Your task to perform on an android device: Show me popular videos on Youtube Image 0: 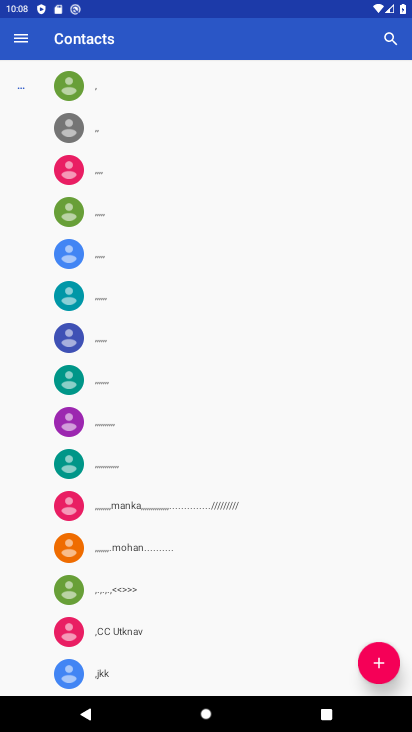
Step 0: press home button
Your task to perform on an android device: Show me popular videos on Youtube Image 1: 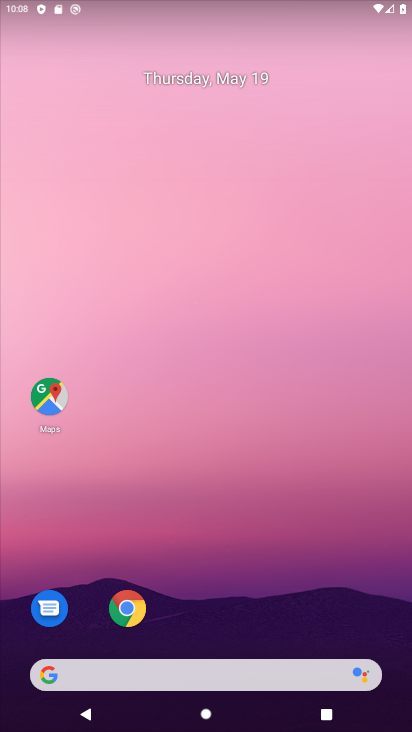
Step 1: drag from (348, 491) to (323, 323)
Your task to perform on an android device: Show me popular videos on Youtube Image 2: 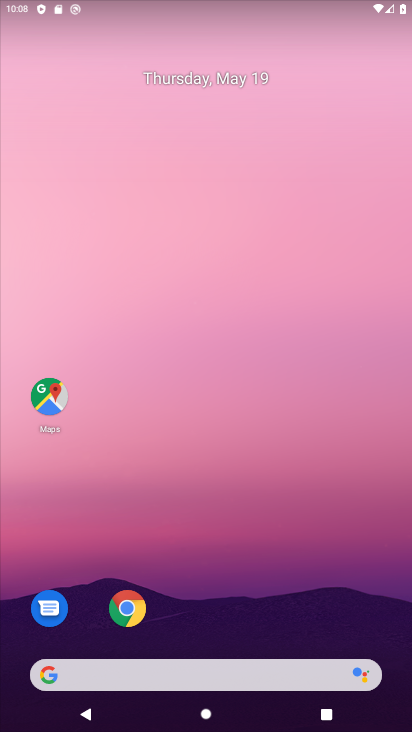
Step 2: drag from (392, 686) to (337, 425)
Your task to perform on an android device: Show me popular videos on Youtube Image 3: 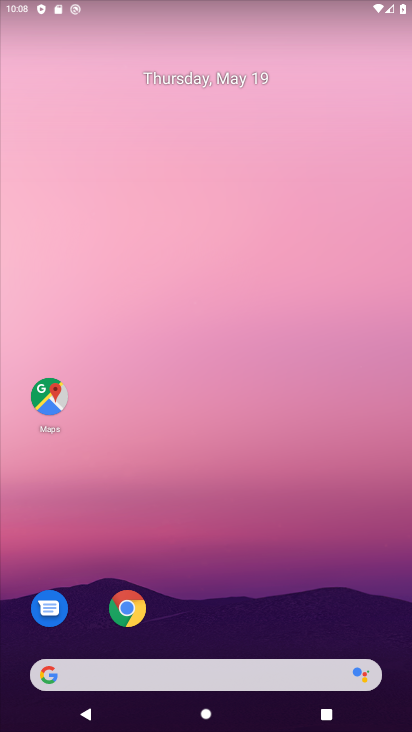
Step 3: drag from (377, 615) to (345, 288)
Your task to perform on an android device: Show me popular videos on Youtube Image 4: 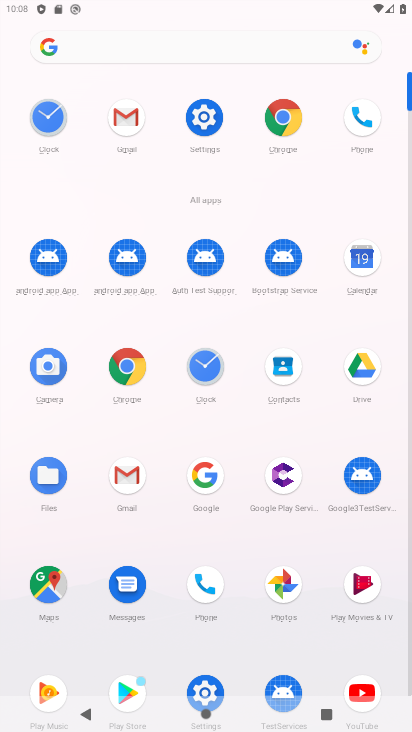
Step 4: click (357, 686)
Your task to perform on an android device: Show me popular videos on Youtube Image 5: 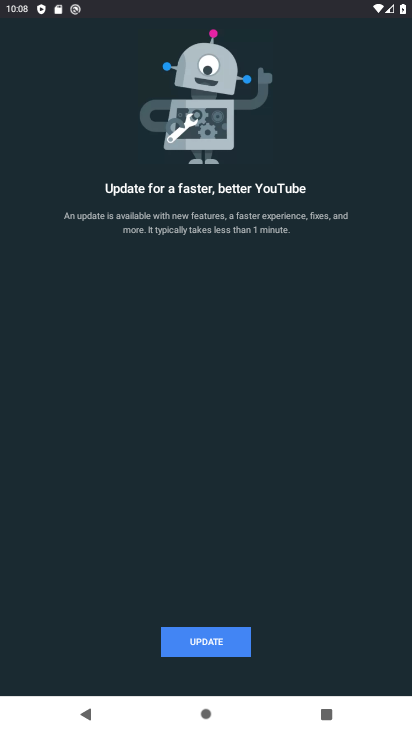
Step 5: click (212, 646)
Your task to perform on an android device: Show me popular videos on Youtube Image 6: 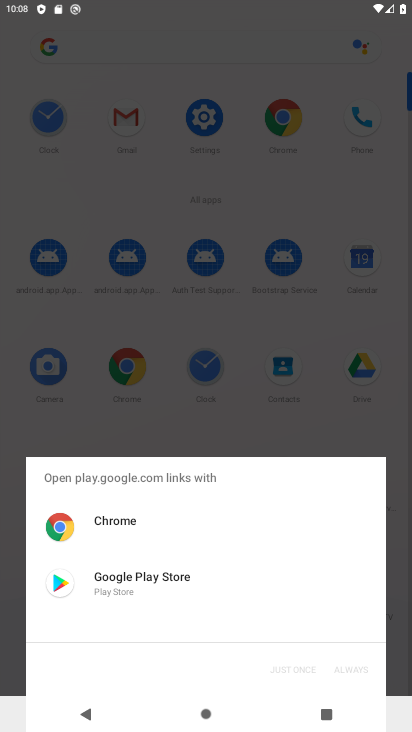
Step 6: click (96, 567)
Your task to perform on an android device: Show me popular videos on Youtube Image 7: 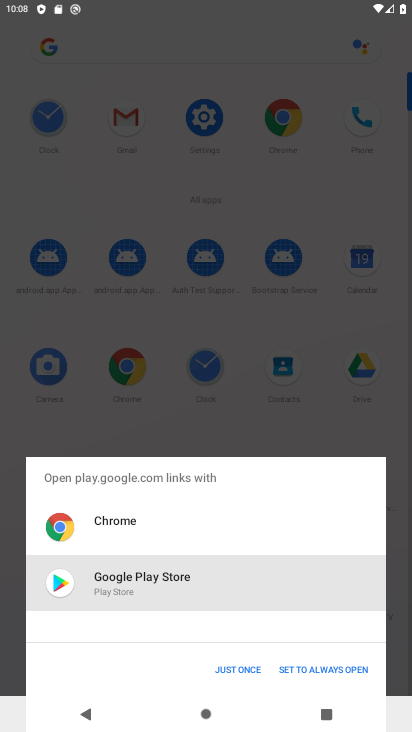
Step 7: click (226, 664)
Your task to perform on an android device: Show me popular videos on Youtube Image 8: 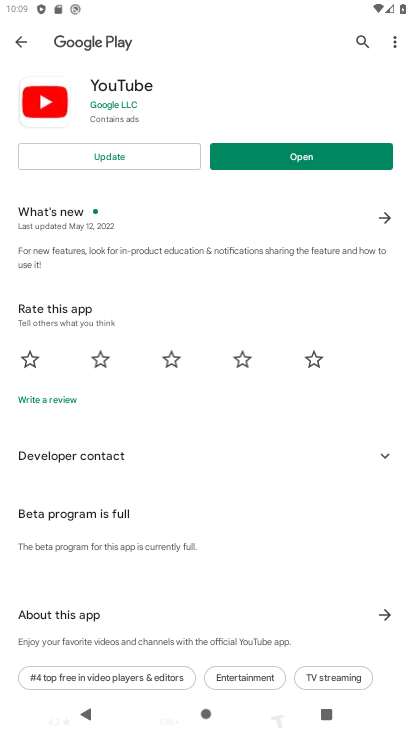
Step 8: click (114, 160)
Your task to perform on an android device: Show me popular videos on Youtube Image 9: 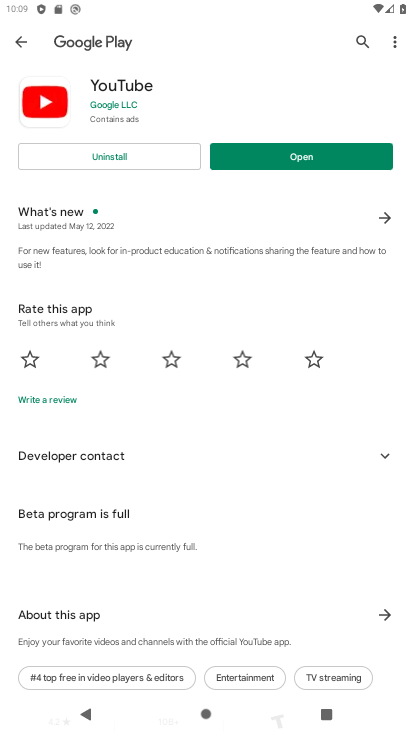
Step 9: click (285, 159)
Your task to perform on an android device: Show me popular videos on Youtube Image 10: 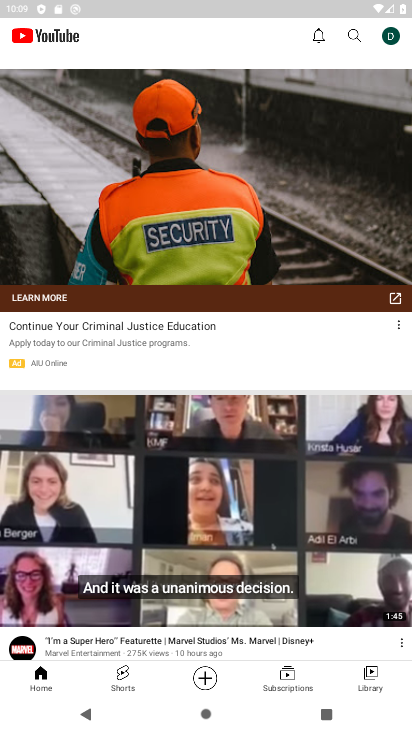
Step 10: click (347, 31)
Your task to perform on an android device: Show me popular videos on Youtube Image 11: 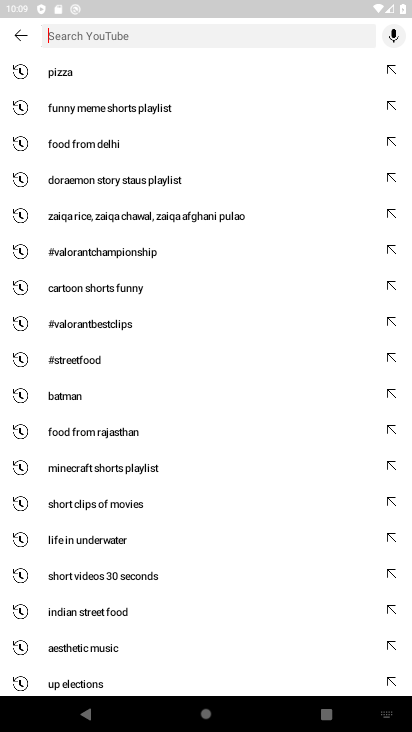
Step 11: type "popular videos"
Your task to perform on an android device: Show me popular videos on Youtube Image 12: 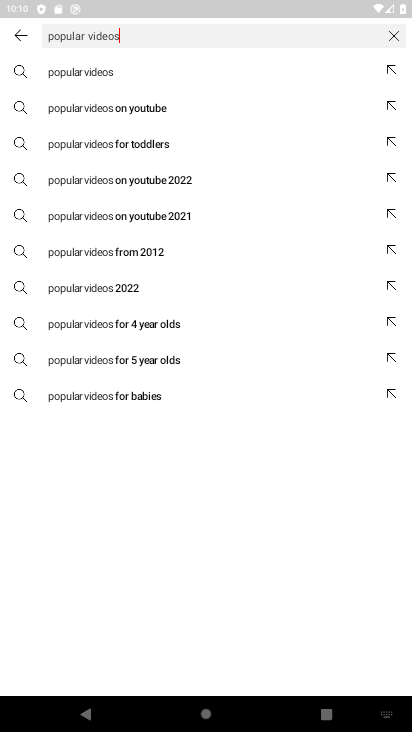
Step 12: click (84, 72)
Your task to perform on an android device: Show me popular videos on Youtube Image 13: 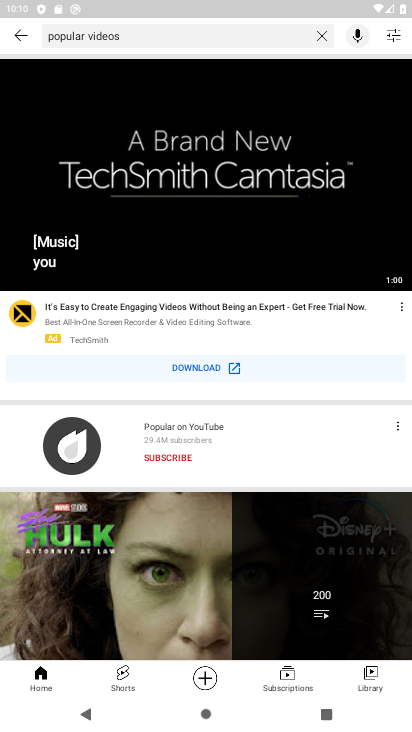
Step 13: task complete